Your task to perform on an android device: Open network settings Image 0: 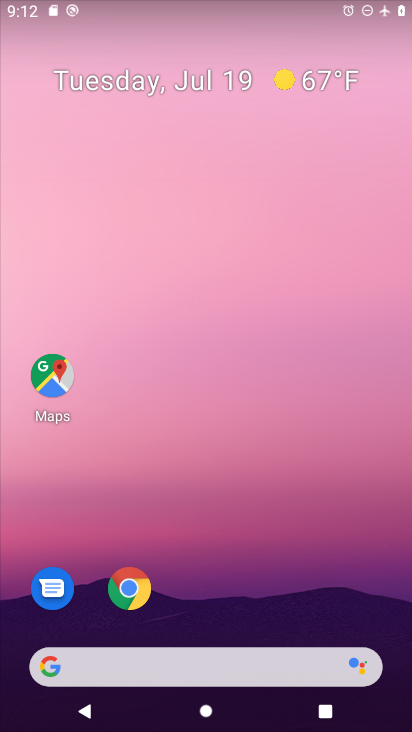
Step 0: drag from (319, 602) to (364, 83)
Your task to perform on an android device: Open network settings Image 1: 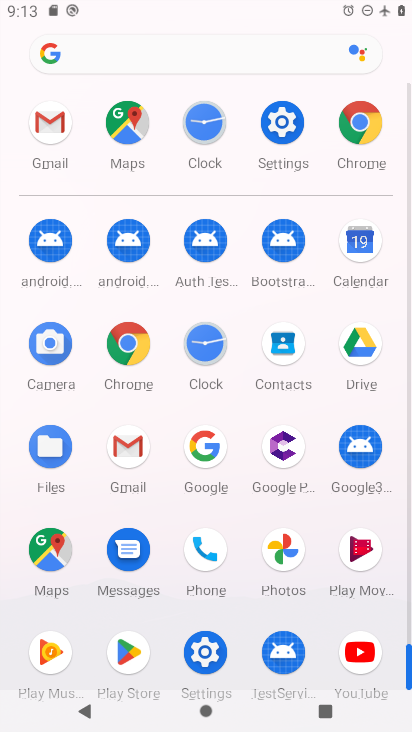
Step 1: click (294, 132)
Your task to perform on an android device: Open network settings Image 2: 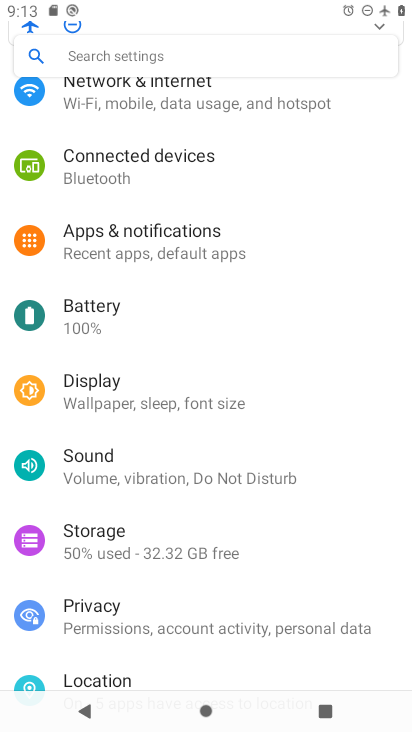
Step 2: drag from (326, 432) to (328, 253)
Your task to perform on an android device: Open network settings Image 3: 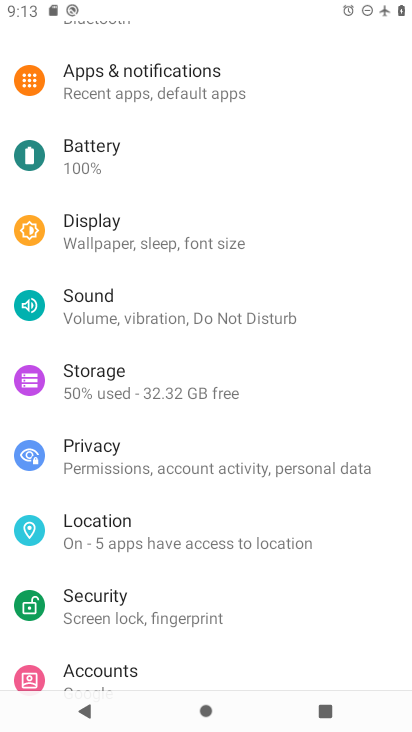
Step 3: drag from (328, 533) to (338, 316)
Your task to perform on an android device: Open network settings Image 4: 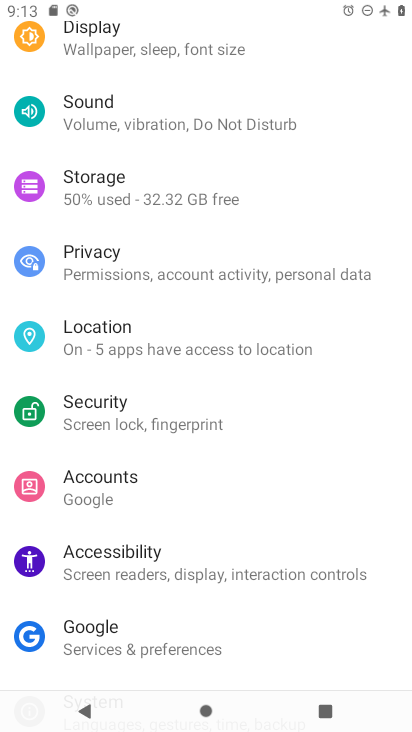
Step 4: drag from (322, 477) to (343, 291)
Your task to perform on an android device: Open network settings Image 5: 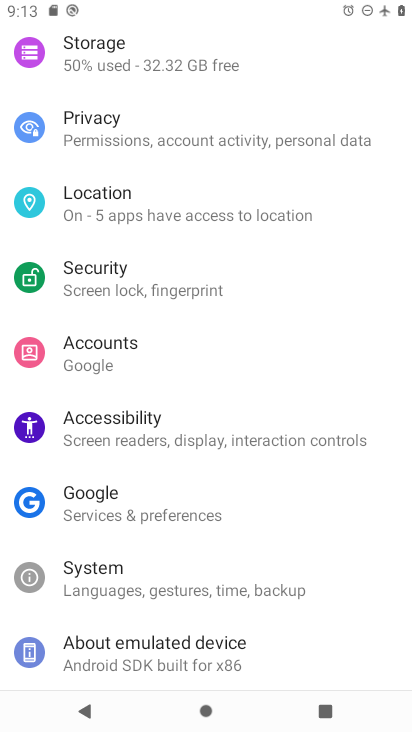
Step 5: drag from (339, 236) to (353, 447)
Your task to perform on an android device: Open network settings Image 6: 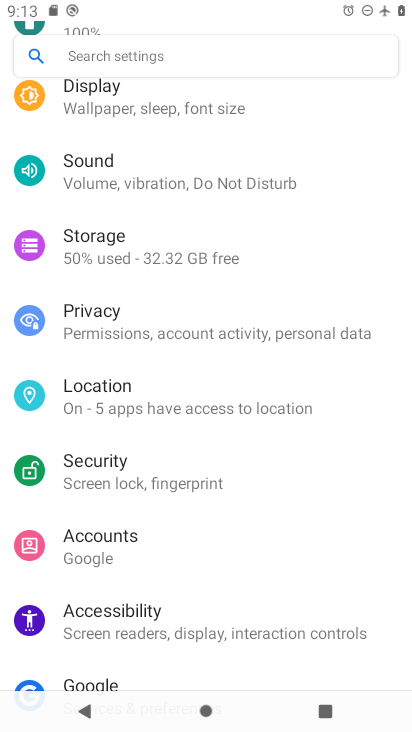
Step 6: drag from (326, 217) to (331, 445)
Your task to perform on an android device: Open network settings Image 7: 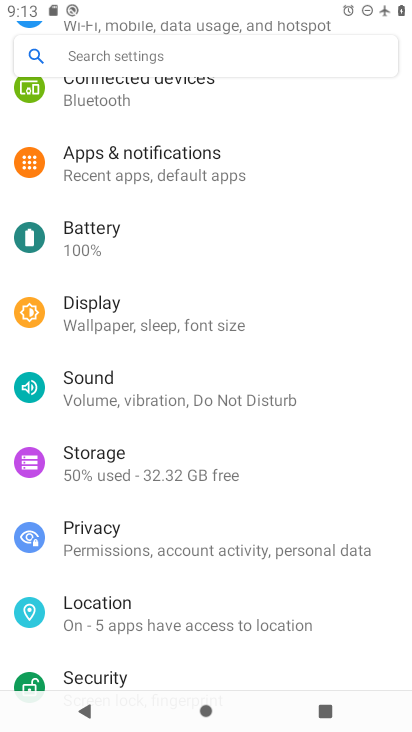
Step 7: drag from (325, 205) to (349, 383)
Your task to perform on an android device: Open network settings Image 8: 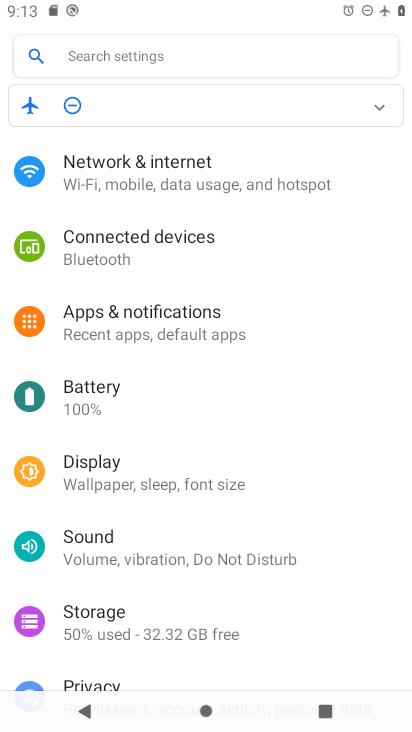
Step 8: drag from (342, 228) to (359, 393)
Your task to perform on an android device: Open network settings Image 9: 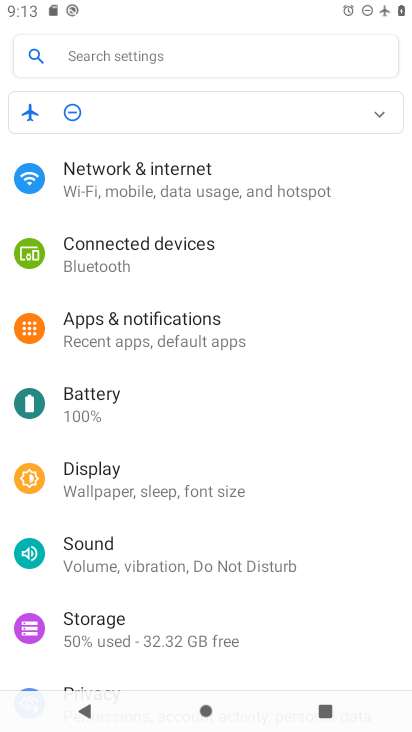
Step 9: click (289, 181)
Your task to perform on an android device: Open network settings Image 10: 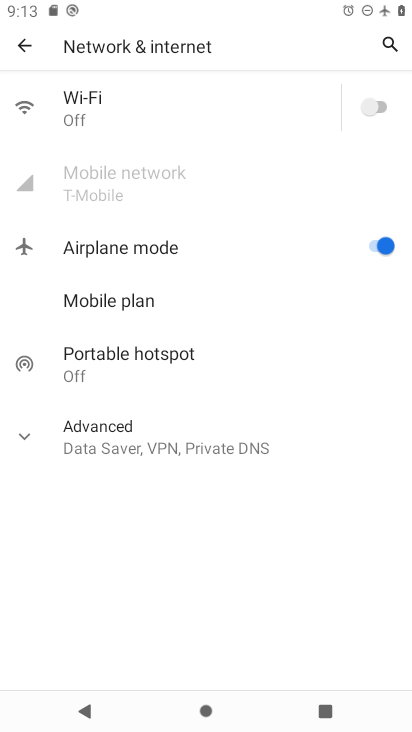
Step 10: task complete